Your task to perform on an android device: delete a single message in the gmail app Image 0: 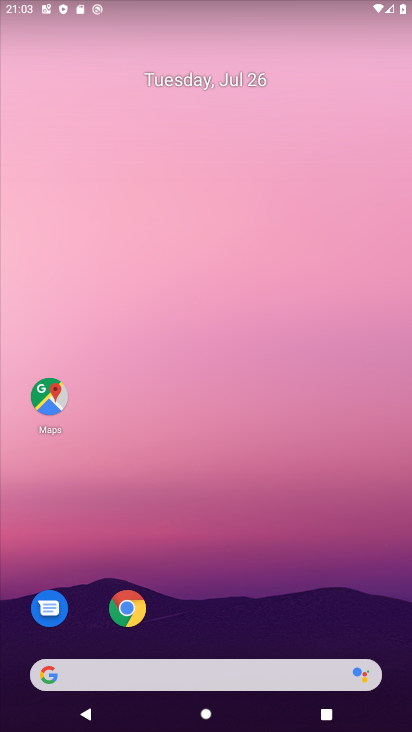
Step 0: drag from (18, 694) to (325, 0)
Your task to perform on an android device: delete a single message in the gmail app Image 1: 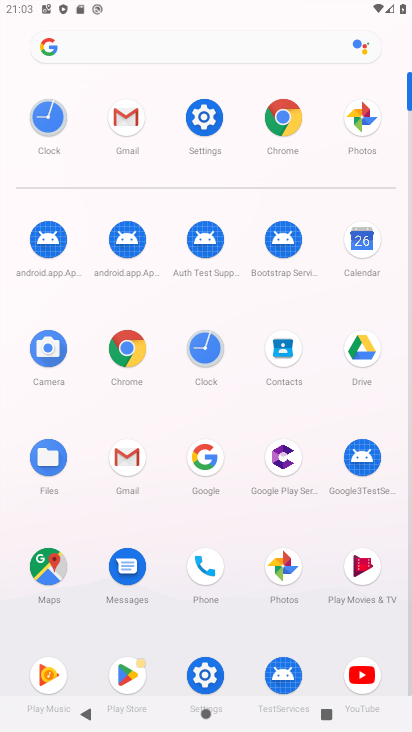
Step 1: click (118, 467)
Your task to perform on an android device: delete a single message in the gmail app Image 2: 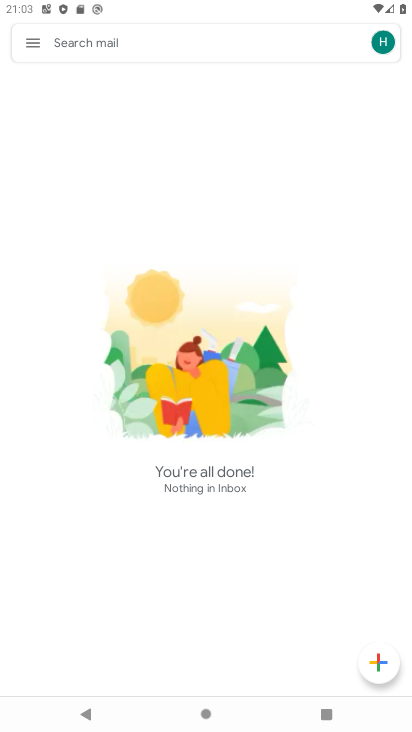
Step 2: click (35, 45)
Your task to perform on an android device: delete a single message in the gmail app Image 3: 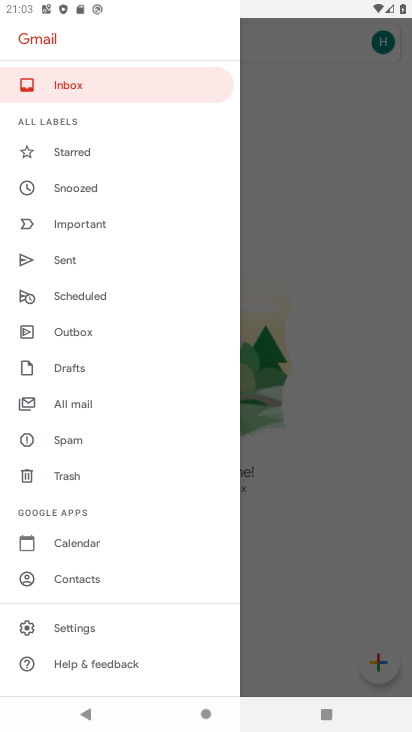
Step 3: click (71, 90)
Your task to perform on an android device: delete a single message in the gmail app Image 4: 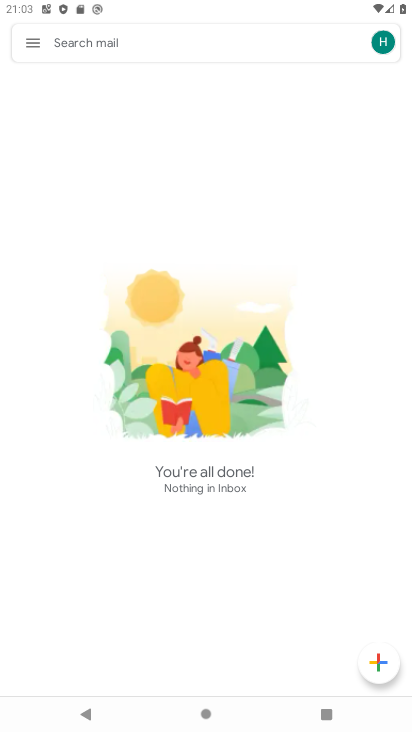
Step 4: task complete